Your task to perform on an android device: Open Wikipedia Image 0: 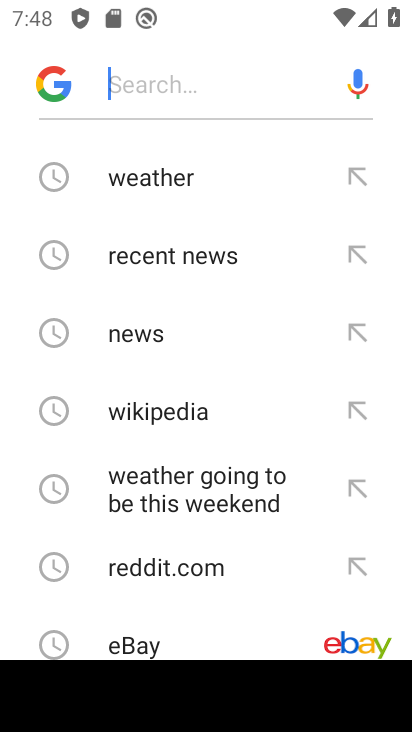
Step 0: type "Wikipedia"
Your task to perform on an android device: Open Wikipedia Image 1: 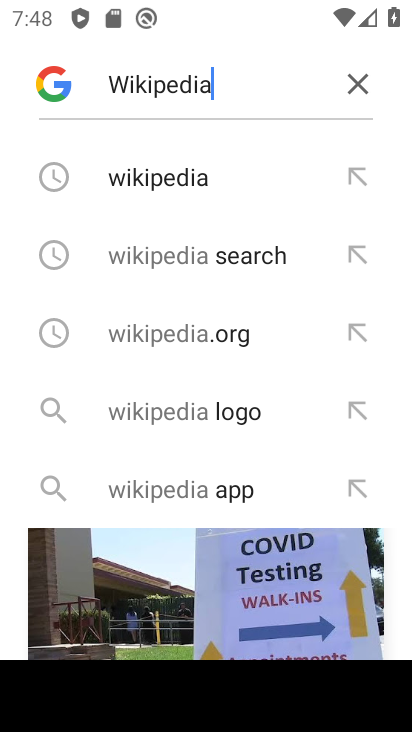
Step 1: click (196, 194)
Your task to perform on an android device: Open Wikipedia Image 2: 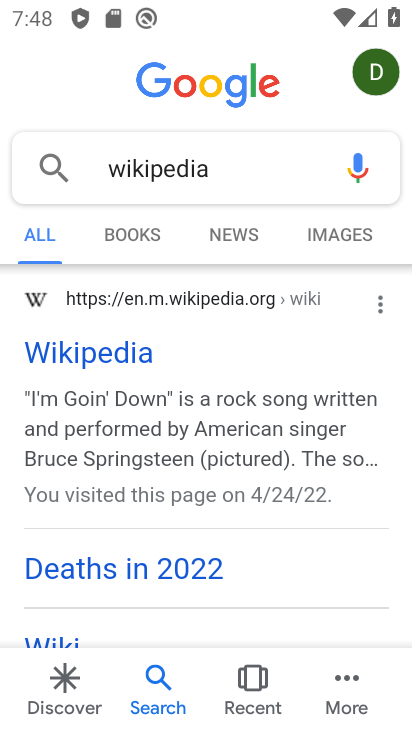
Step 2: click (108, 352)
Your task to perform on an android device: Open Wikipedia Image 3: 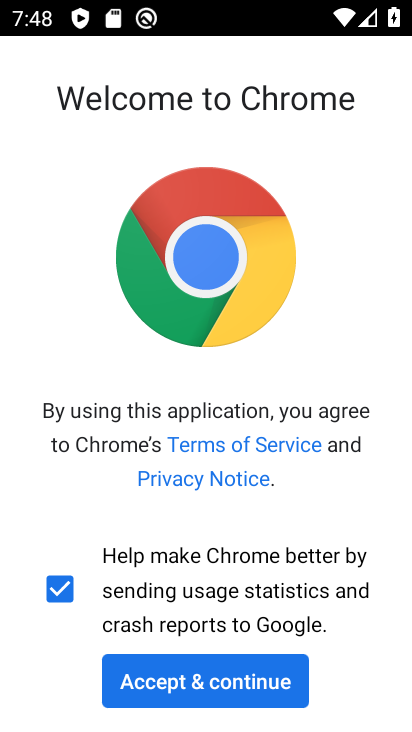
Step 3: click (188, 669)
Your task to perform on an android device: Open Wikipedia Image 4: 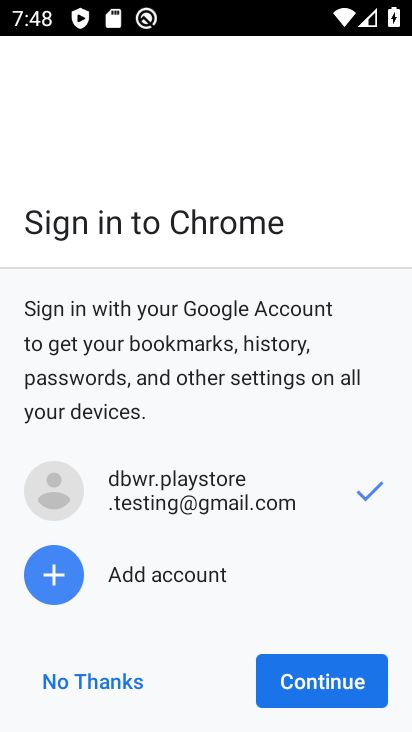
Step 4: click (303, 675)
Your task to perform on an android device: Open Wikipedia Image 5: 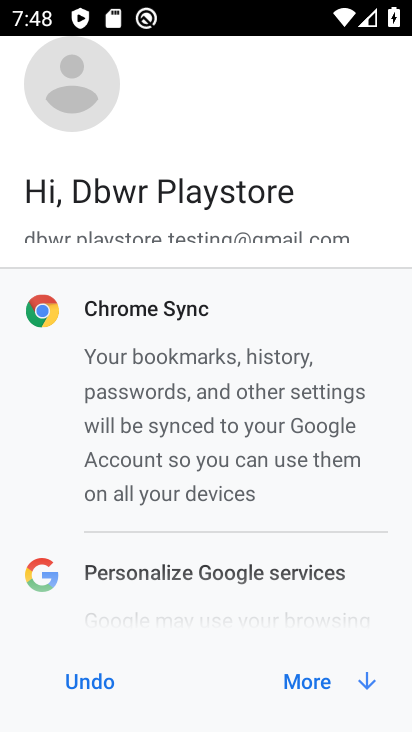
Step 5: click (303, 675)
Your task to perform on an android device: Open Wikipedia Image 6: 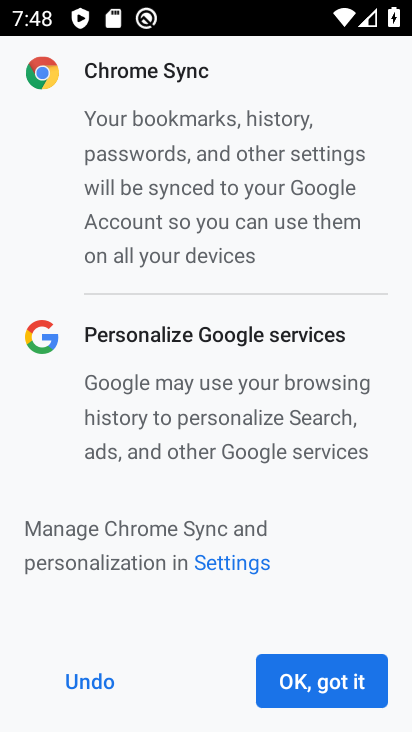
Step 6: click (303, 675)
Your task to perform on an android device: Open Wikipedia Image 7: 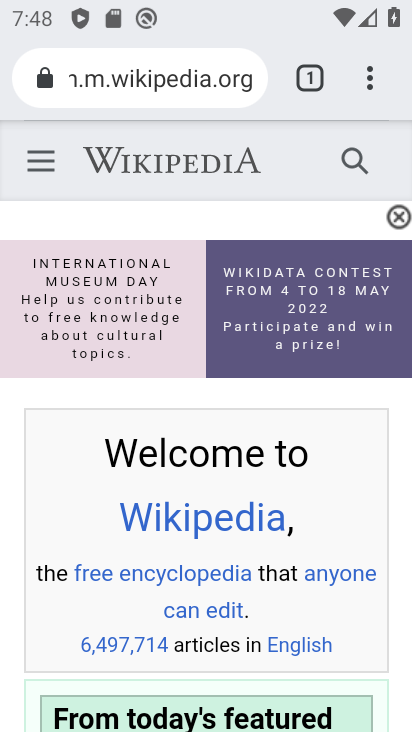
Step 7: task complete